Your task to perform on an android device: Go to location settings Image 0: 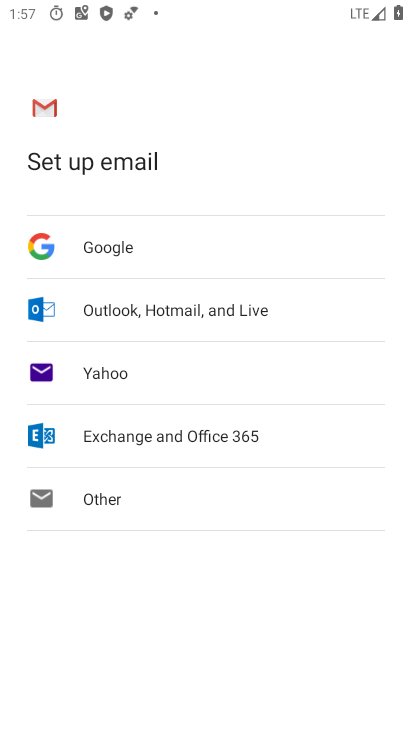
Step 0: press home button
Your task to perform on an android device: Go to location settings Image 1: 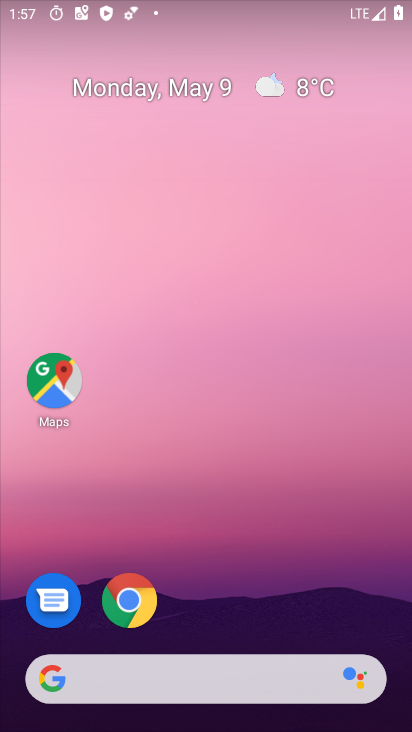
Step 1: drag from (228, 624) to (221, 70)
Your task to perform on an android device: Go to location settings Image 2: 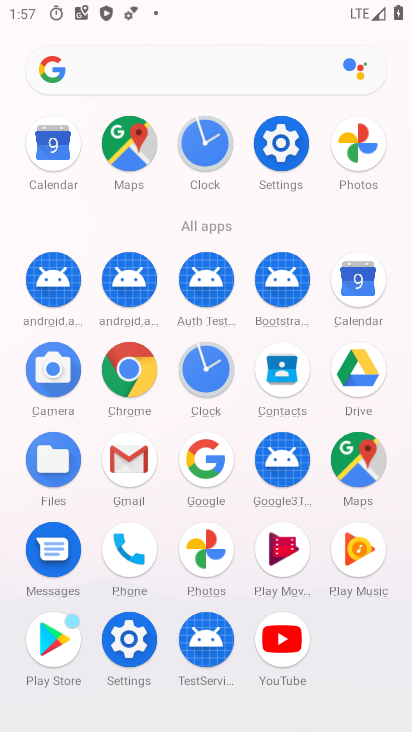
Step 2: click (123, 634)
Your task to perform on an android device: Go to location settings Image 3: 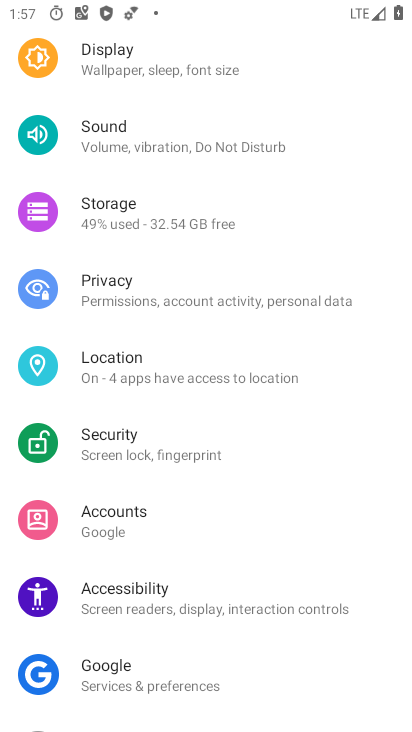
Step 3: click (118, 356)
Your task to perform on an android device: Go to location settings Image 4: 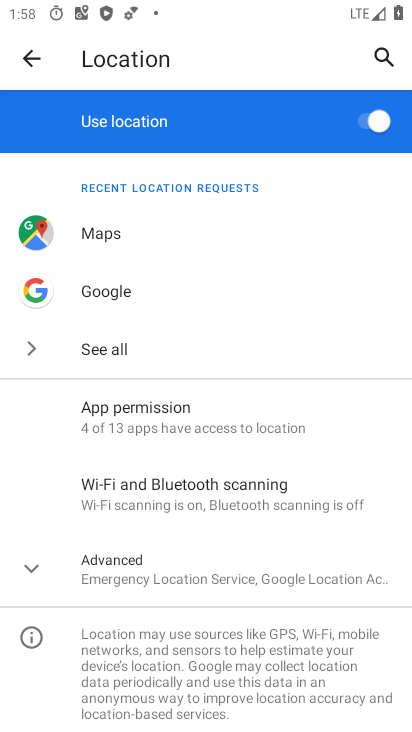
Step 4: click (106, 568)
Your task to perform on an android device: Go to location settings Image 5: 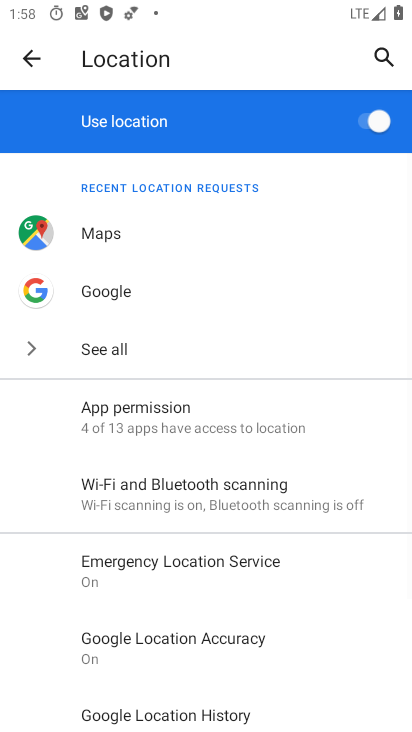
Step 5: task complete